Your task to perform on an android device: Go to settings Image 0: 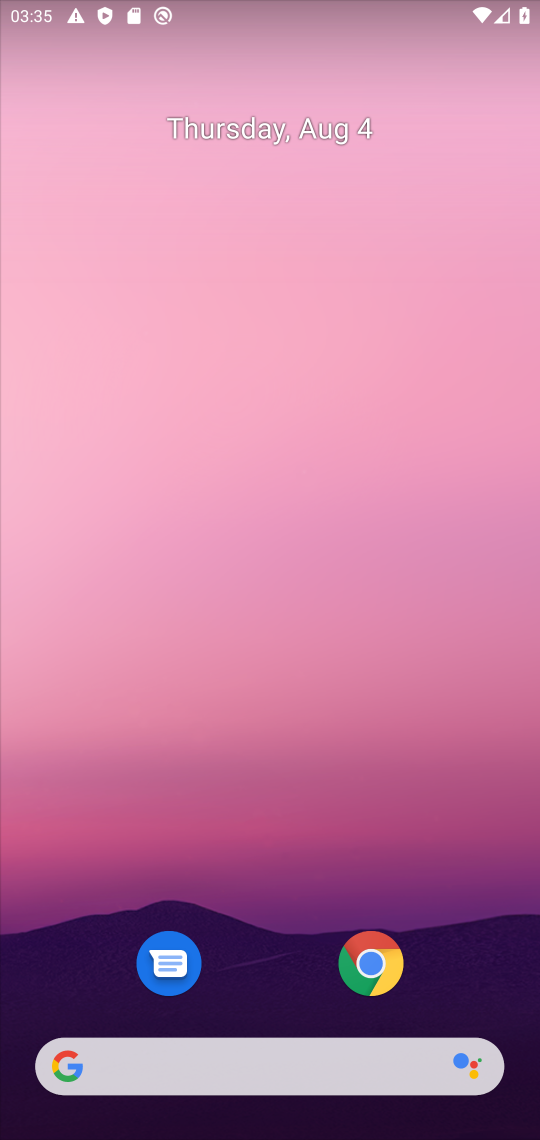
Step 0: drag from (277, 892) to (249, 60)
Your task to perform on an android device: Go to settings Image 1: 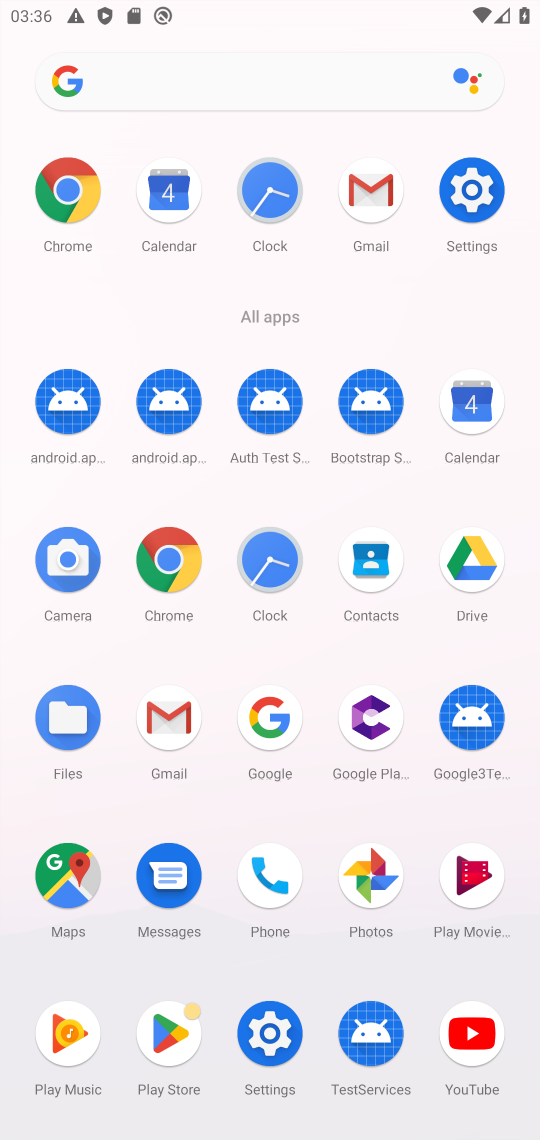
Step 1: click (480, 189)
Your task to perform on an android device: Go to settings Image 2: 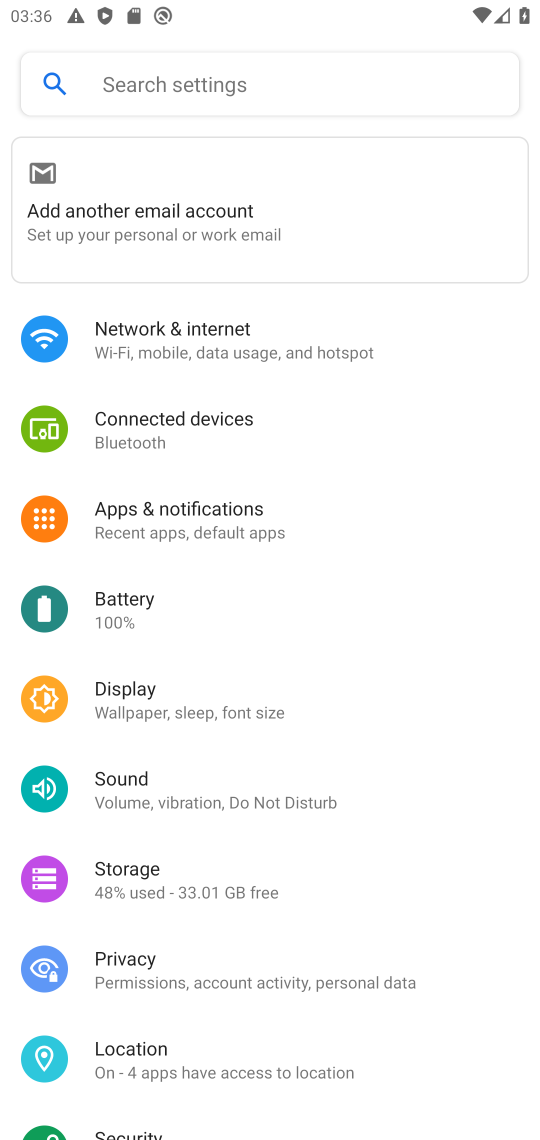
Step 2: task complete